Your task to perform on an android device: Add jbl charge 4 to the cart on amazon.com Image 0: 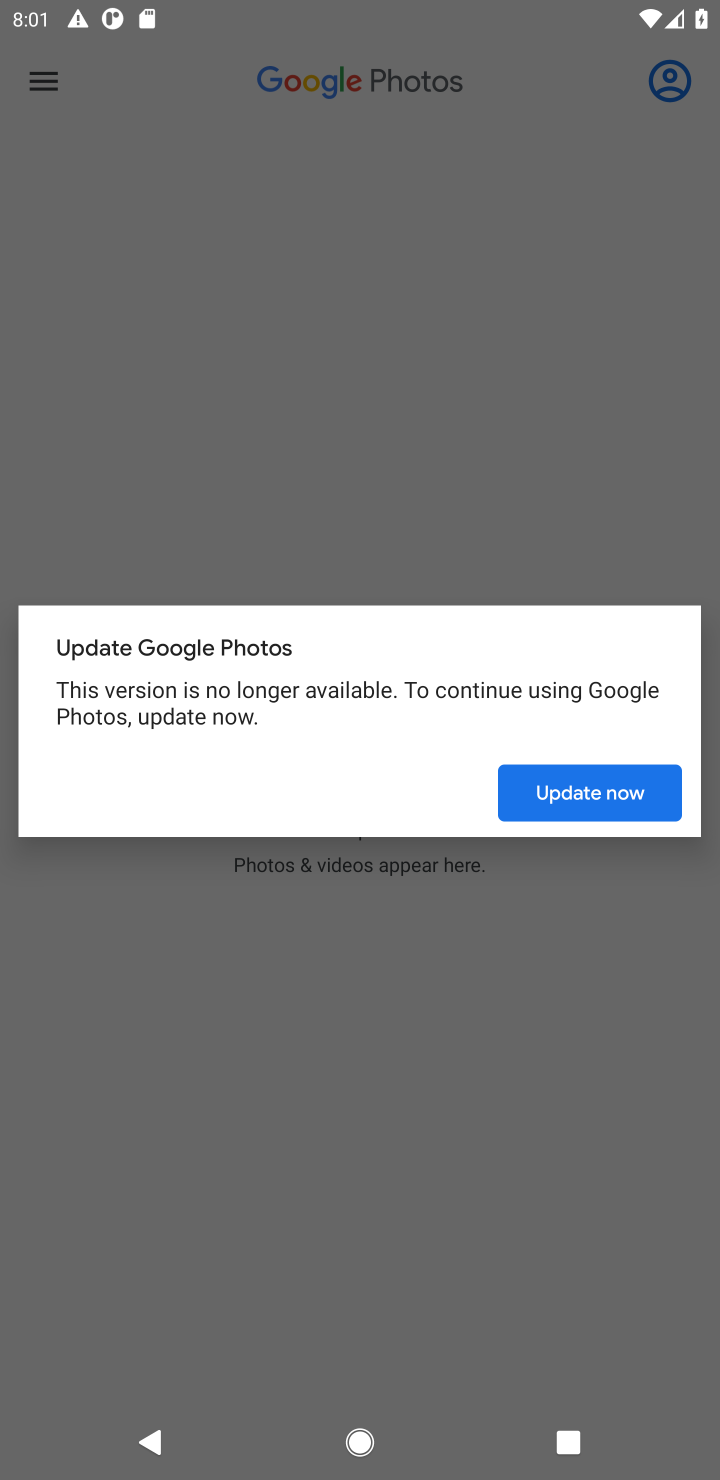
Step 0: press home button
Your task to perform on an android device: Add jbl charge 4 to the cart on amazon.com Image 1: 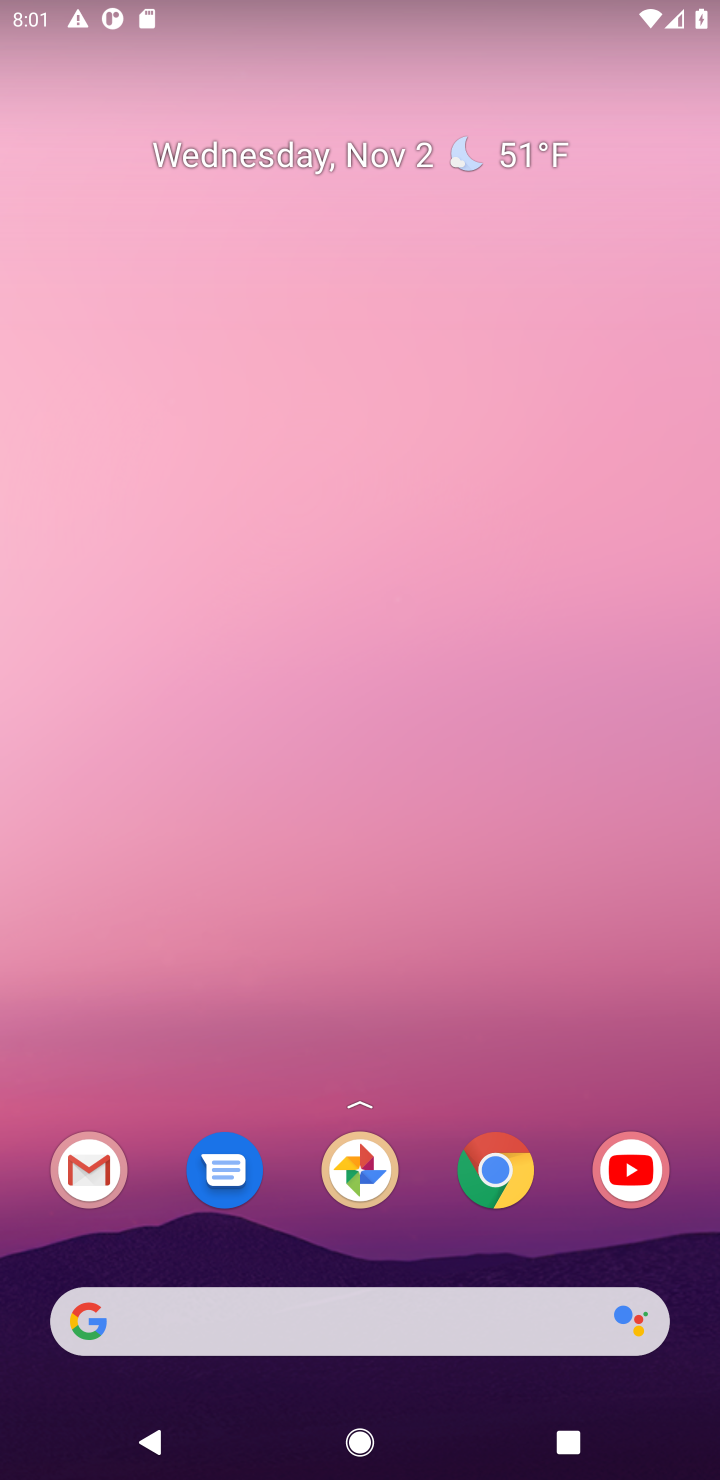
Step 1: click (488, 1171)
Your task to perform on an android device: Add jbl charge 4 to the cart on amazon.com Image 2: 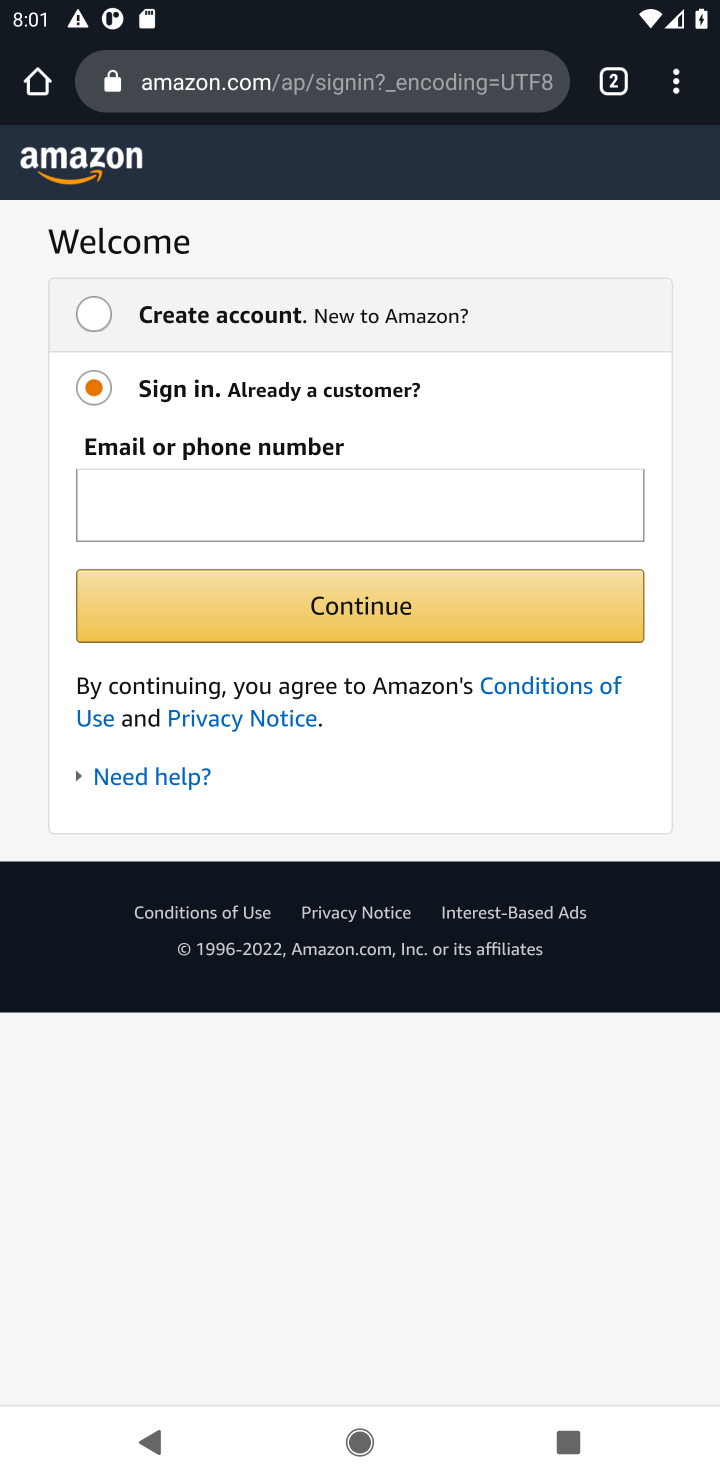
Step 2: click (433, 85)
Your task to perform on an android device: Add jbl charge 4 to the cart on amazon.com Image 3: 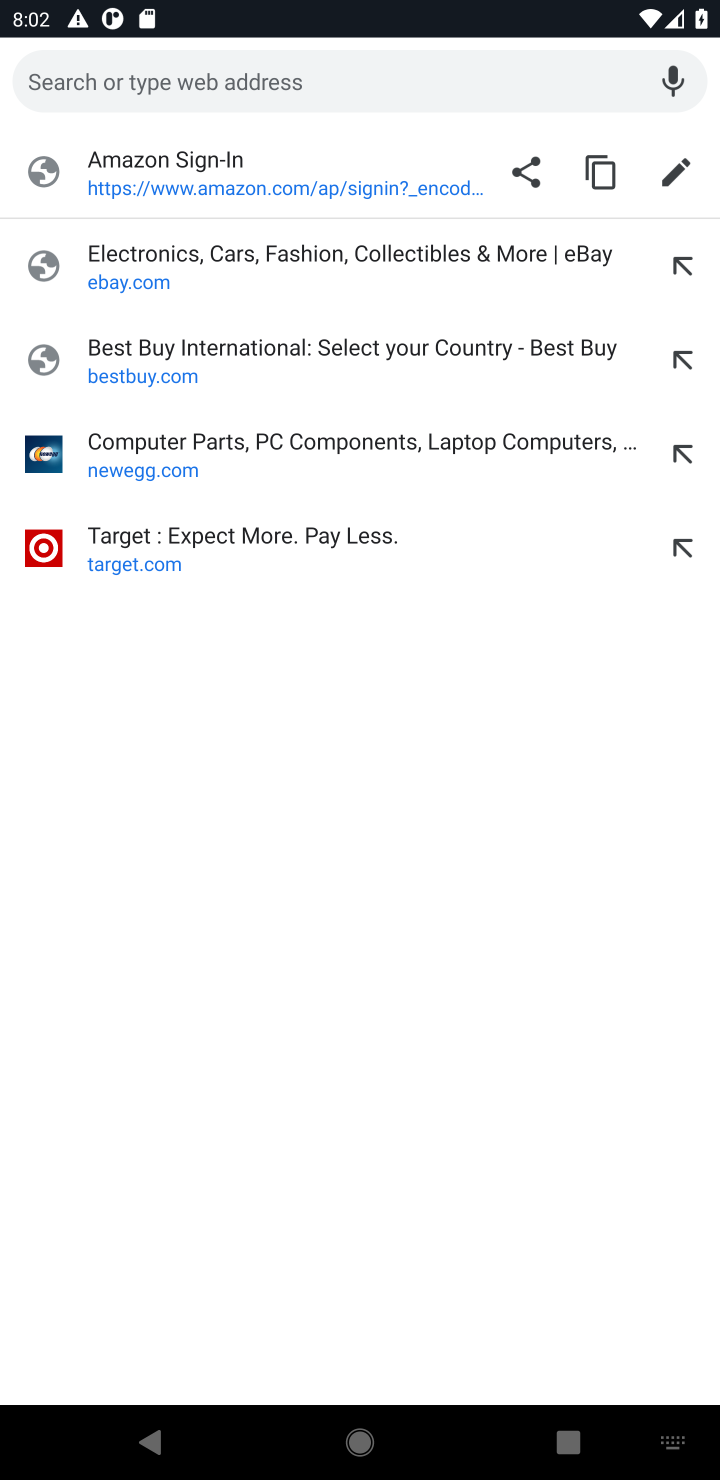
Step 3: type "amazon.com"
Your task to perform on an android device: Add jbl charge 4 to the cart on amazon.com Image 4: 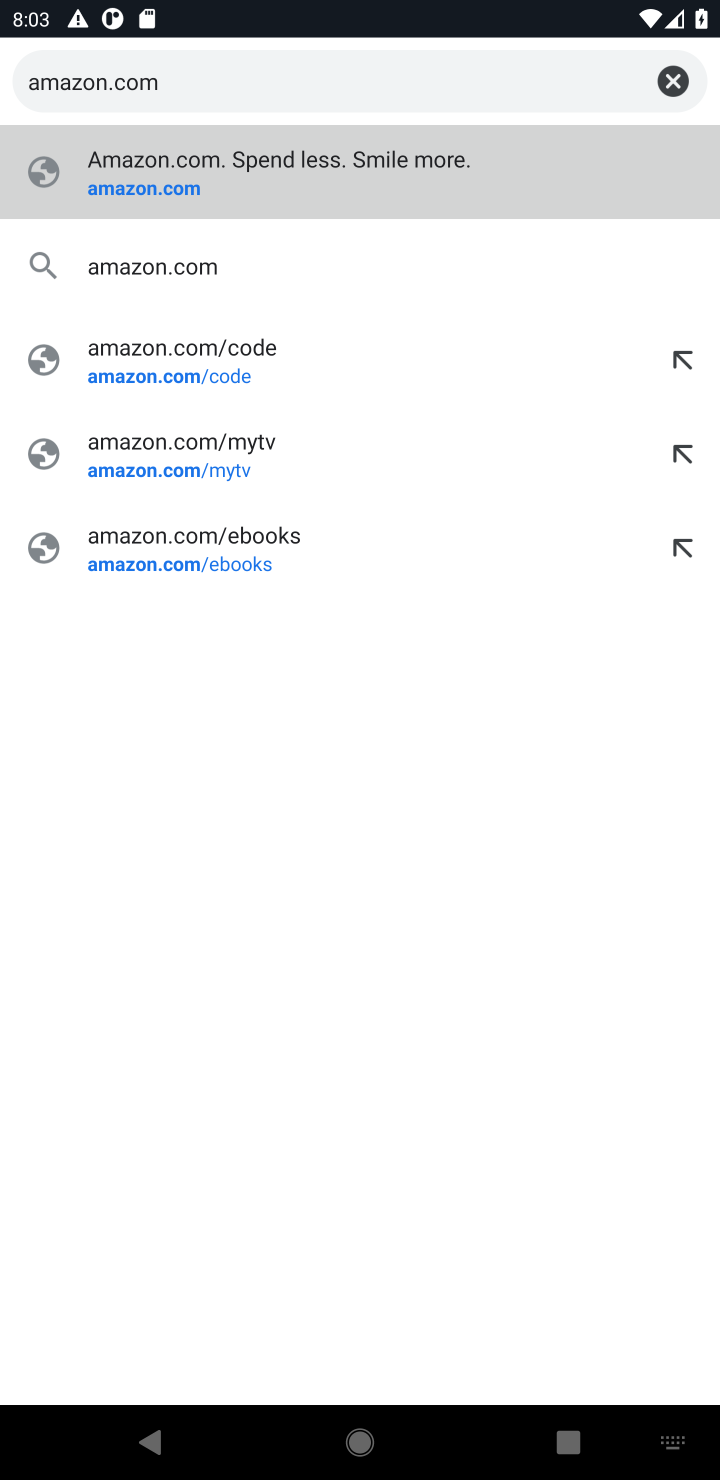
Step 4: type ""
Your task to perform on an android device: Add jbl charge 4 to the cart on amazon.com Image 5: 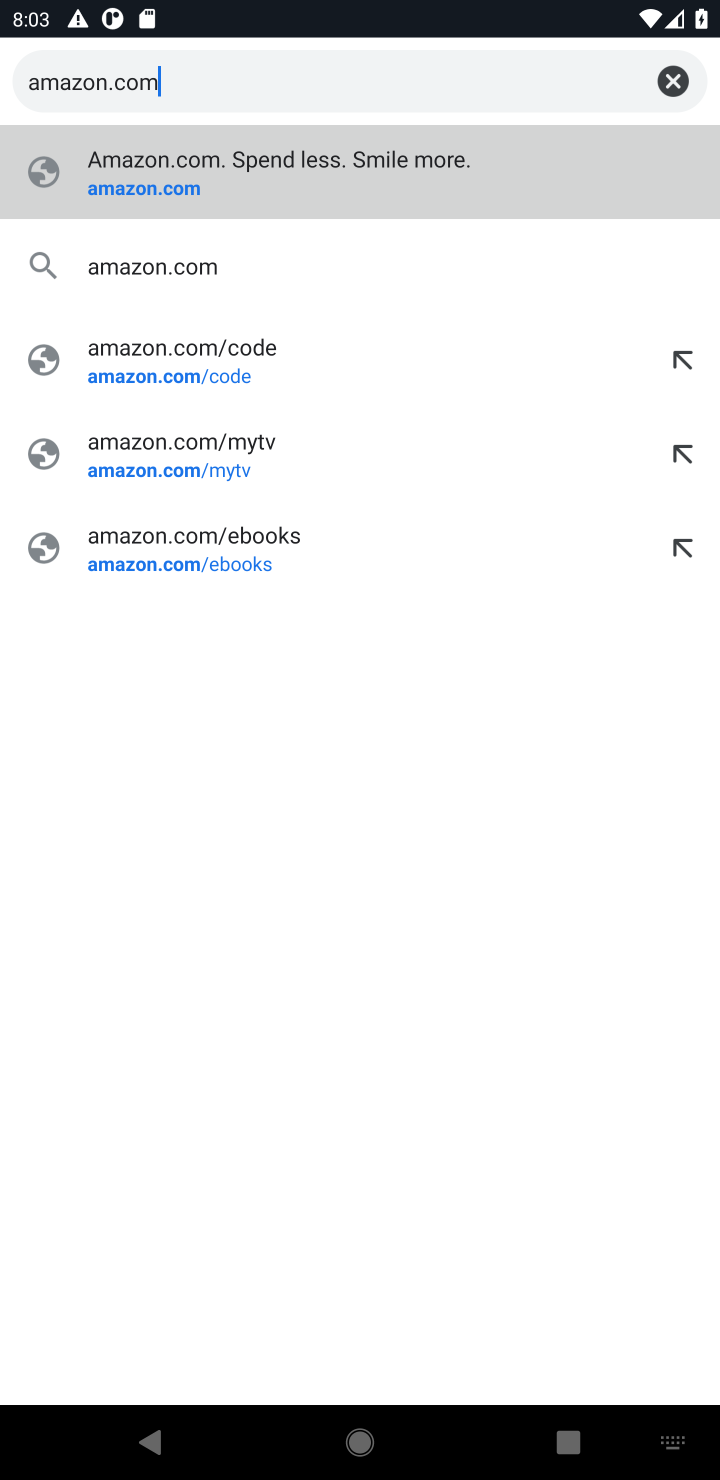
Step 5: press enter
Your task to perform on an android device: Add jbl charge 4 to the cart on amazon.com Image 6: 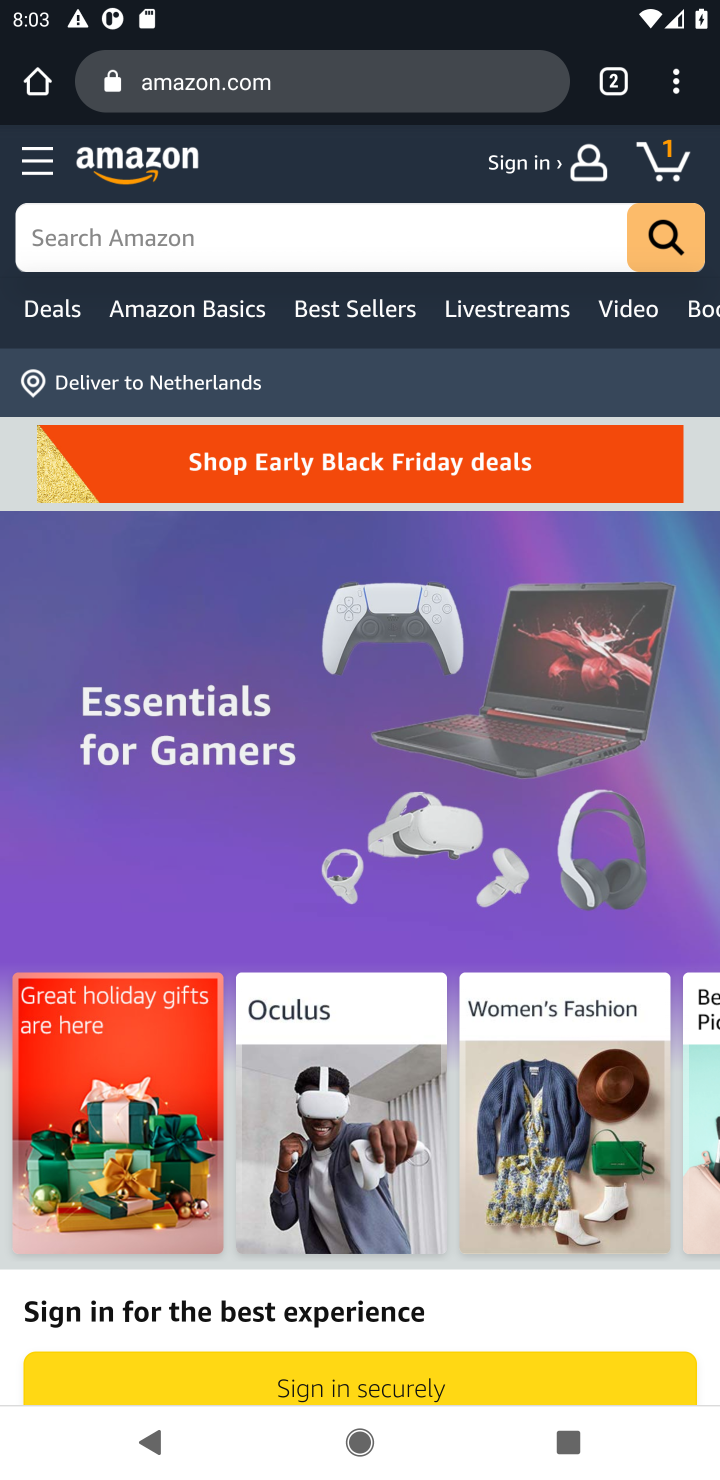
Step 6: click (495, 205)
Your task to perform on an android device: Add jbl charge 4 to the cart on amazon.com Image 7: 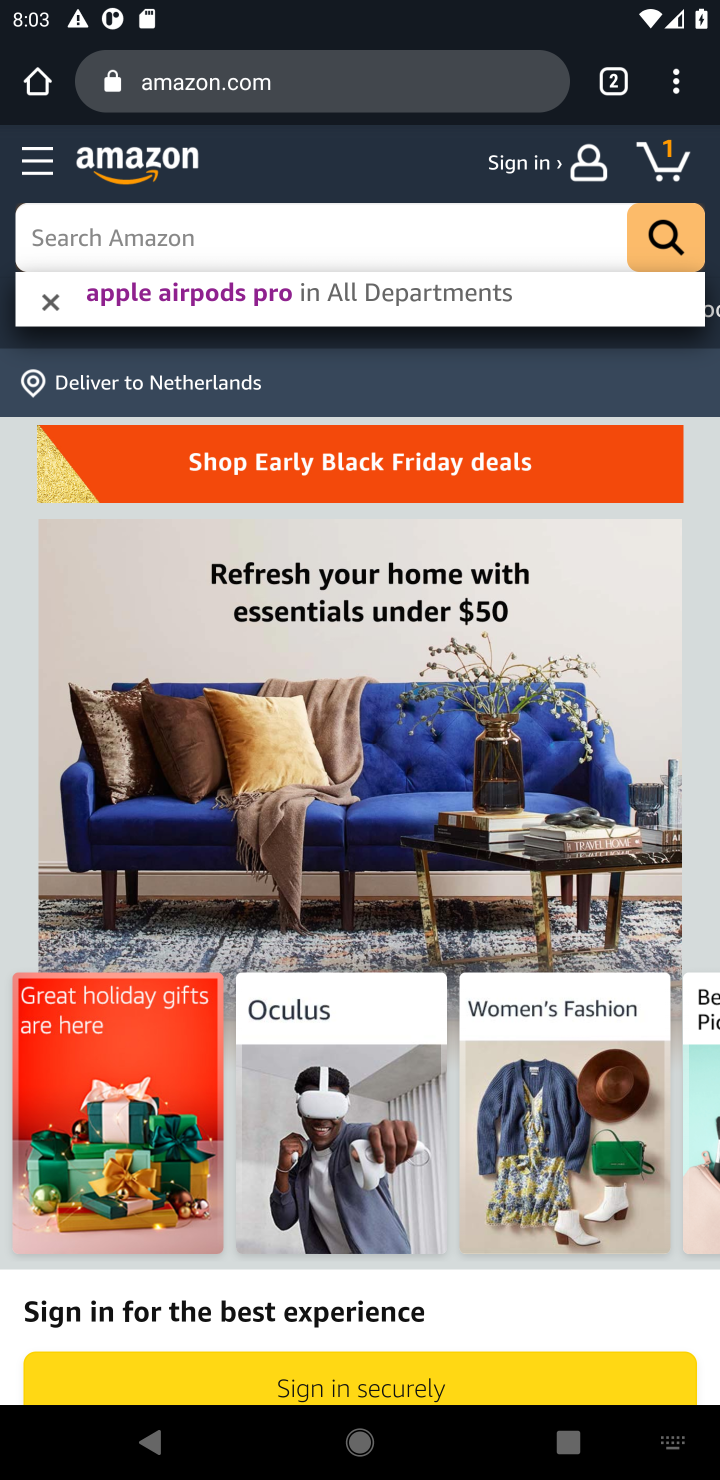
Step 7: type " jbl charge 4"
Your task to perform on an android device: Add jbl charge 4 to the cart on amazon.com Image 8: 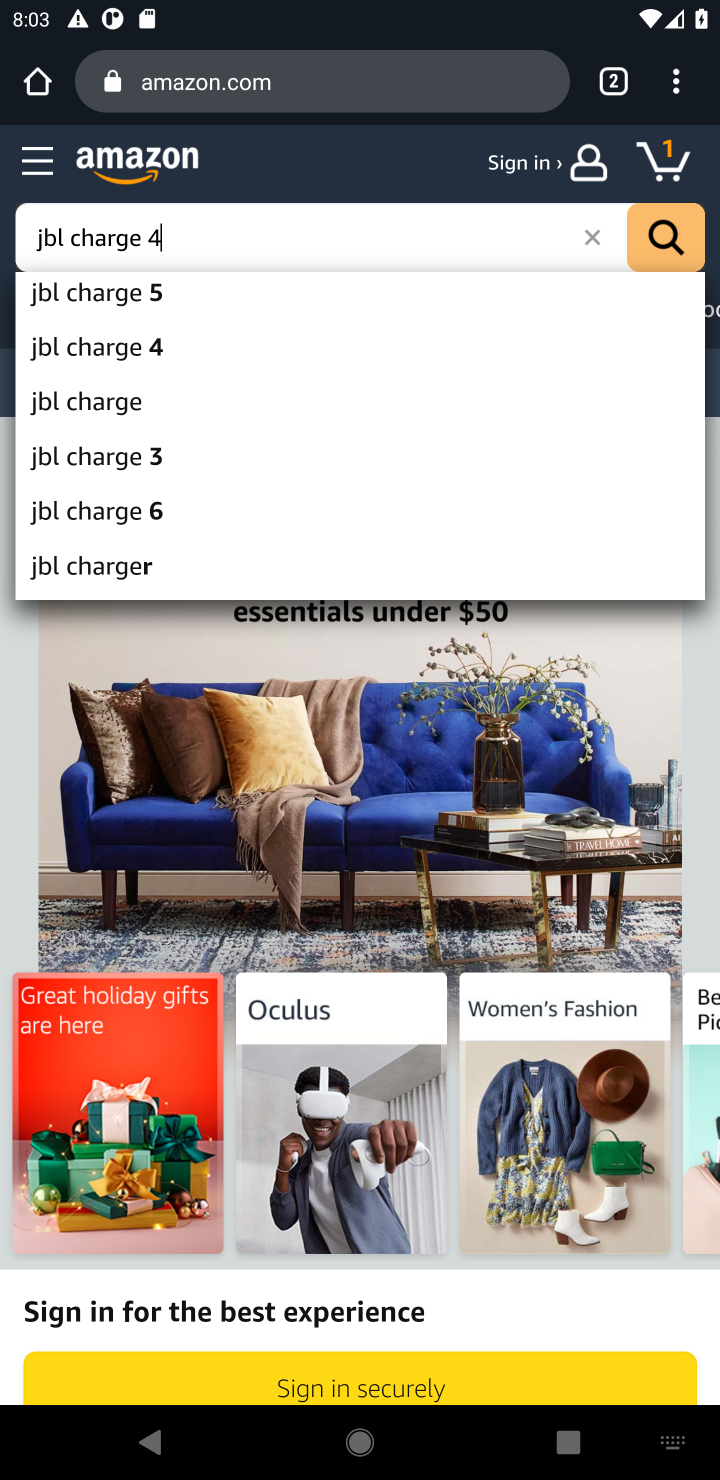
Step 8: type ""
Your task to perform on an android device: Add jbl charge 4 to the cart on amazon.com Image 9: 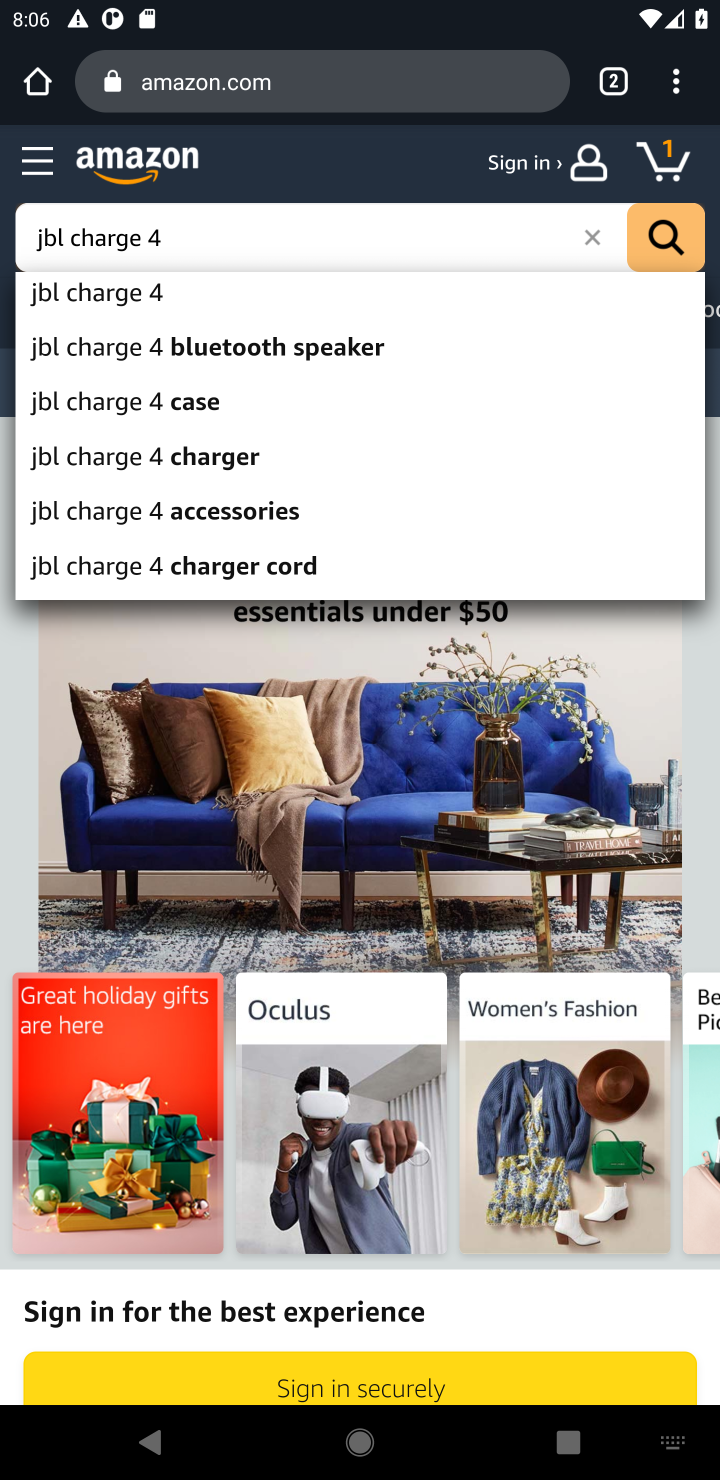
Step 9: press enter
Your task to perform on an android device: Add jbl charge 4 to the cart on amazon.com Image 10: 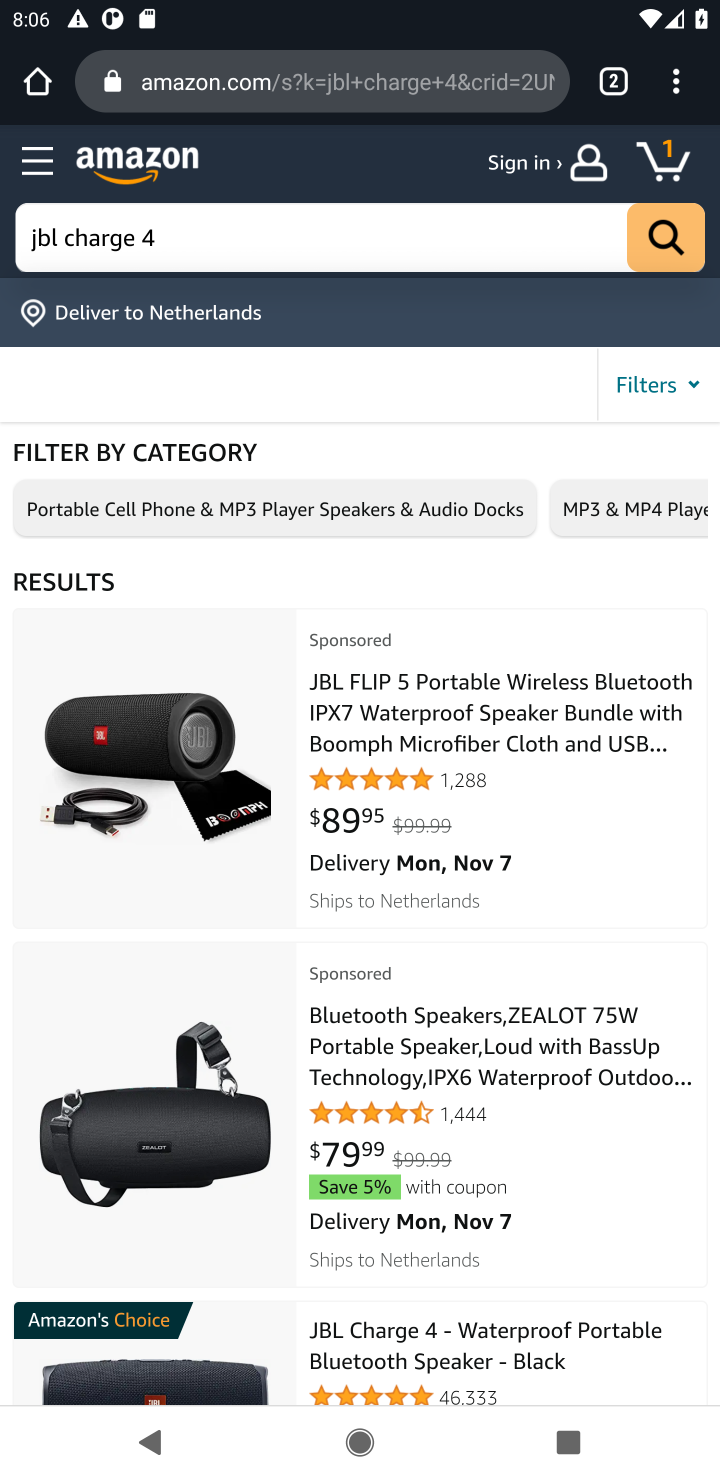
Step 10: drag from (519, 1272) to (440, 13)
Your task to perform on an android device: Add jbl charge 4 to the cart on amazon.com Image 11: 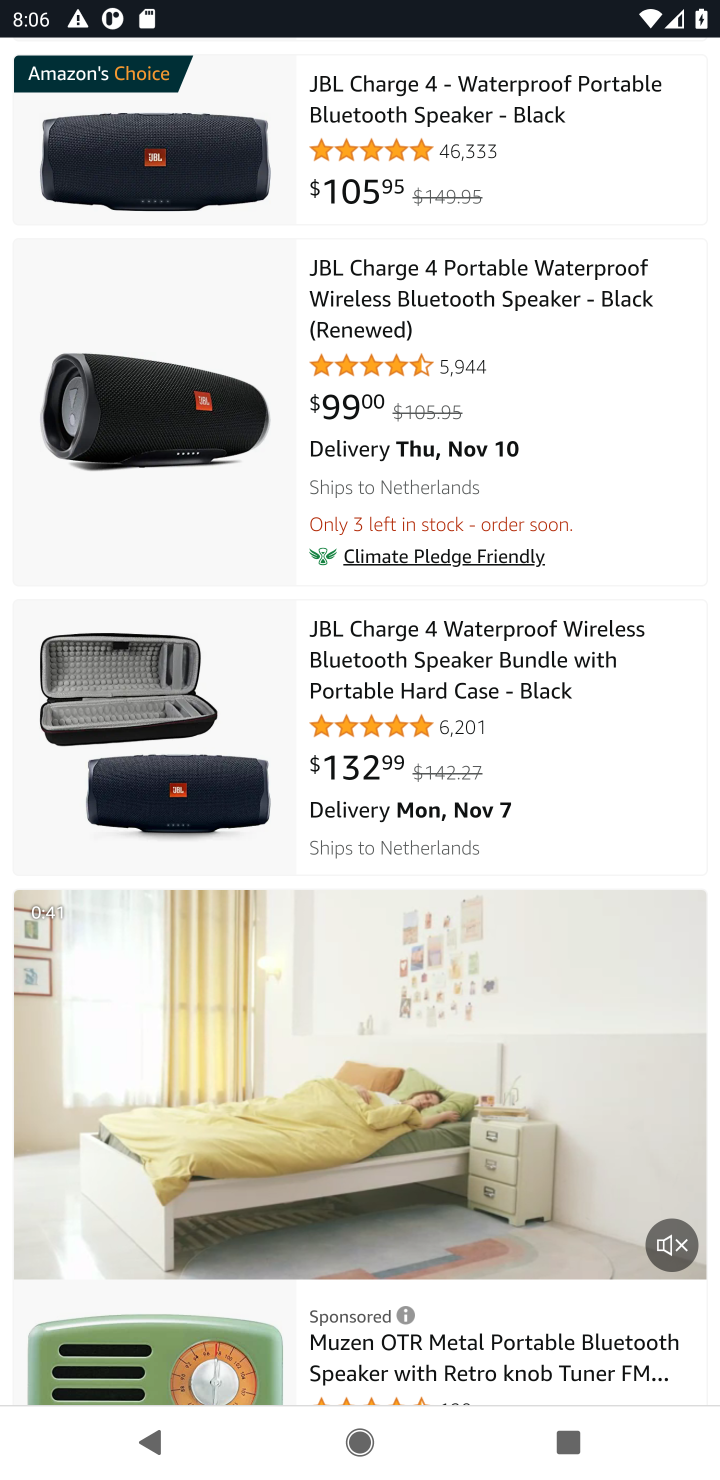
Step 11: click (437, 636)
Your task to perform on an android device: Add jbl charge 4 to the cart on amazon.com Image 12: 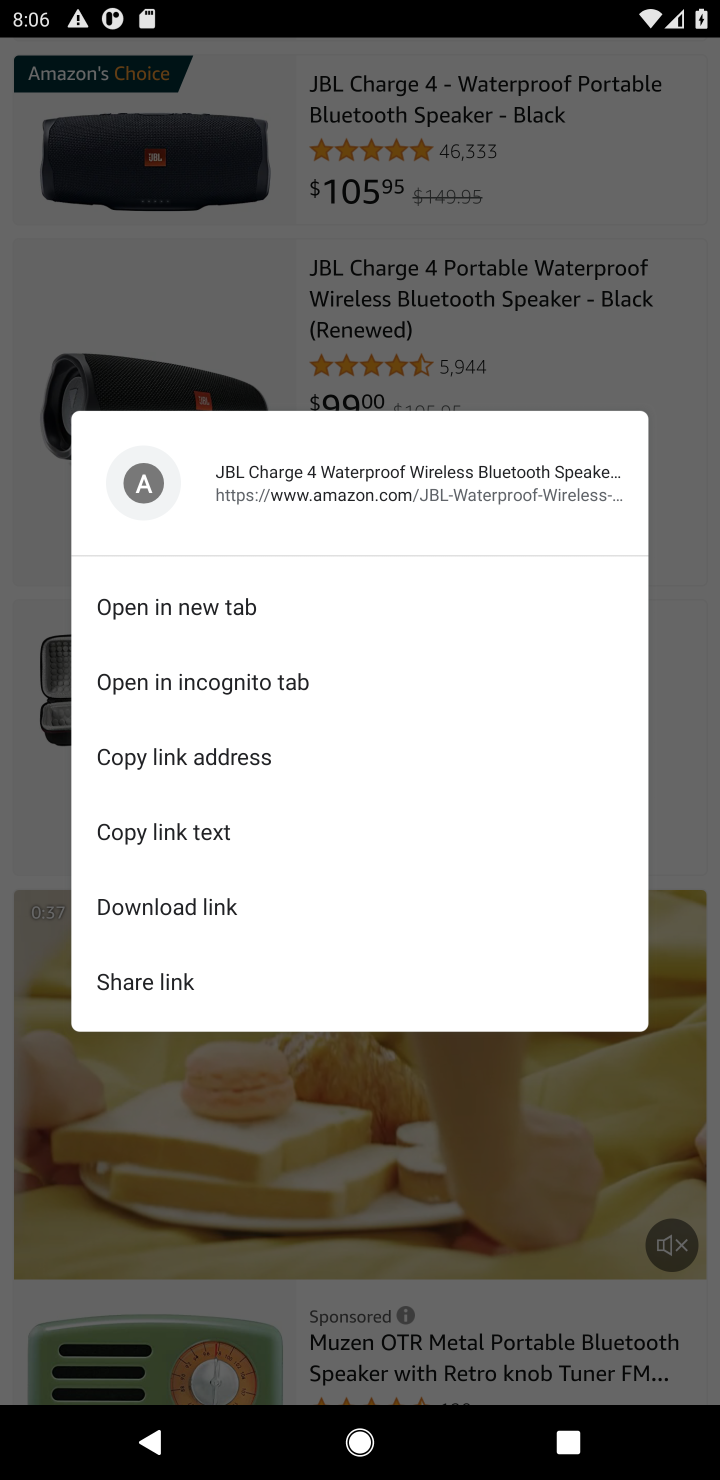
Step 12: click (675, 746)
Your task to perform on an android device: Add jbl charge 4 to the cart on amazon.com Image 13: 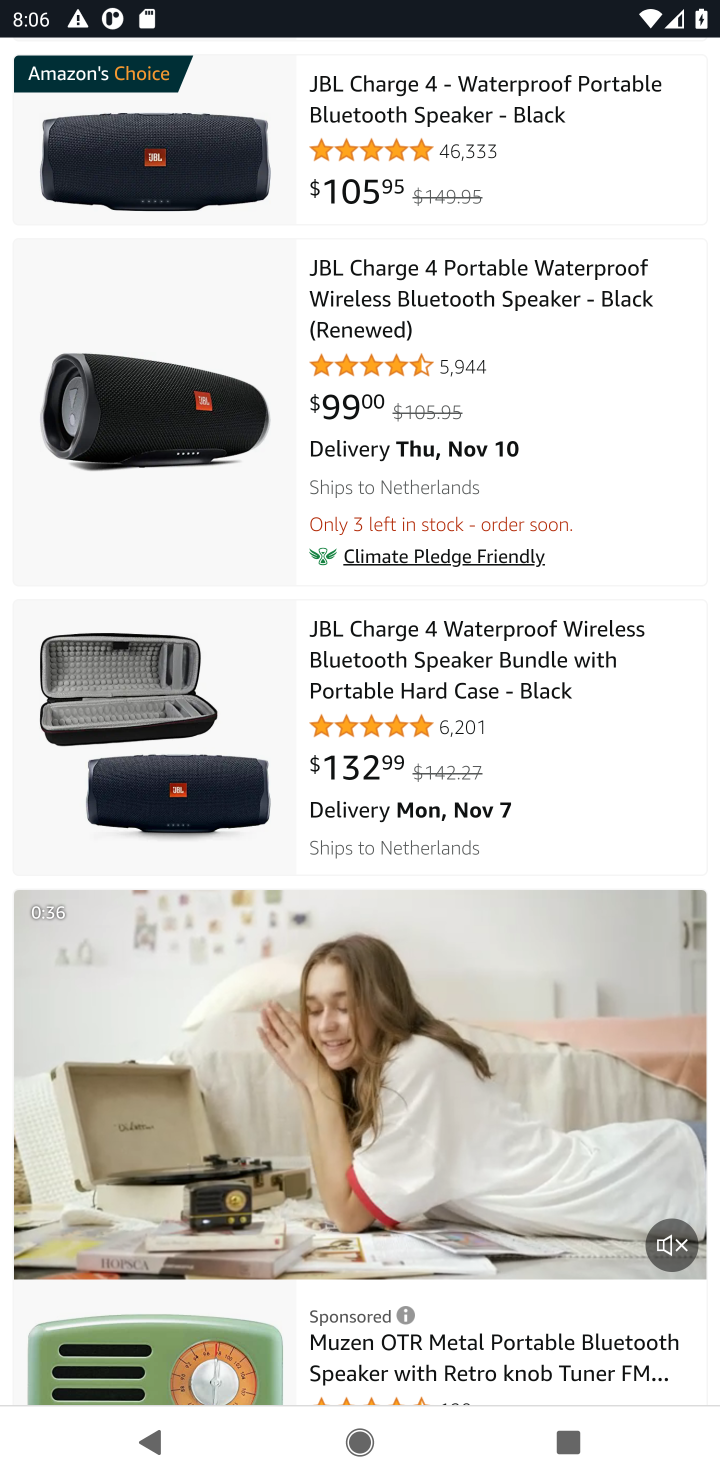
Step 13: click (312, 655)
Your task to perform on an android device: Add jbl charge 4 to the cart on amazon.com Image 14: 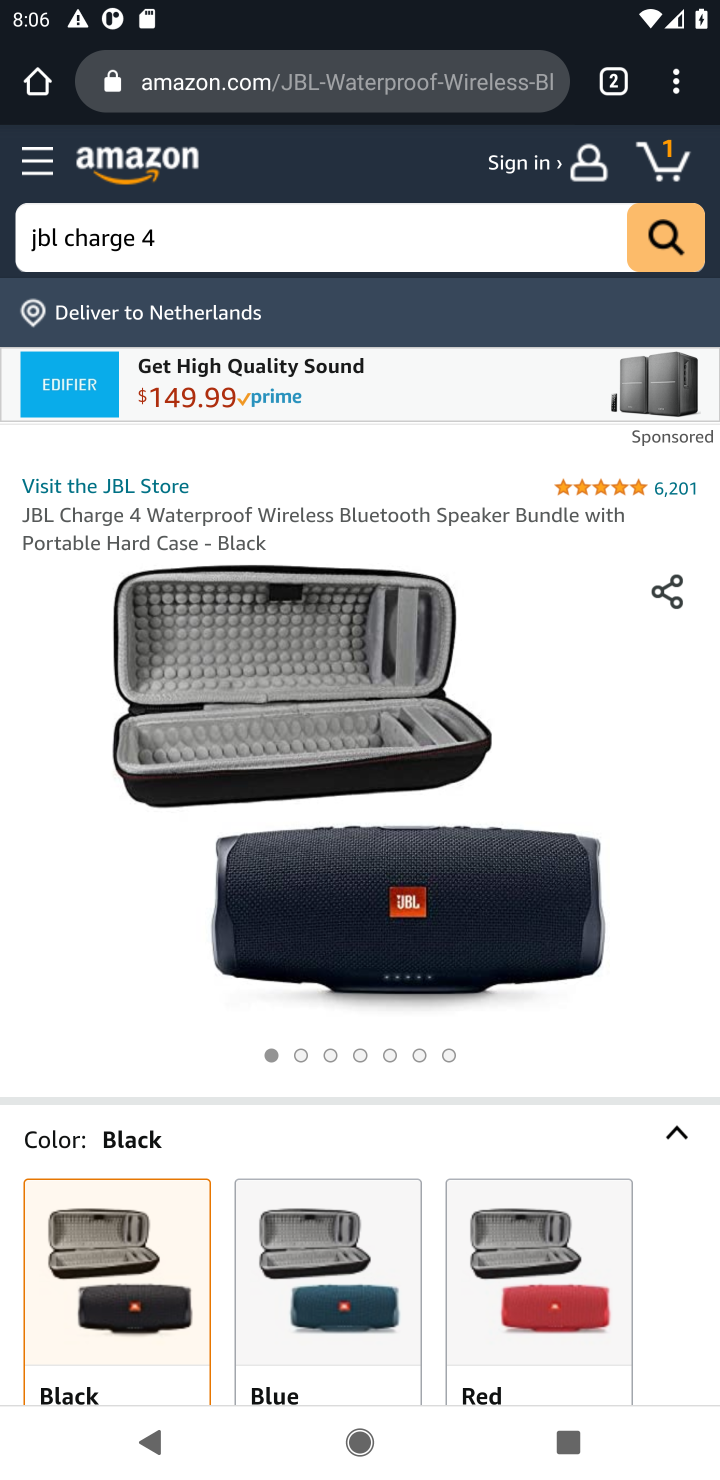
Step 14: drag from (507, 1146) to (470, 521)
Your task to perform on an android device: Add jbl charge 4 to the cart on amazon.com Image 15: 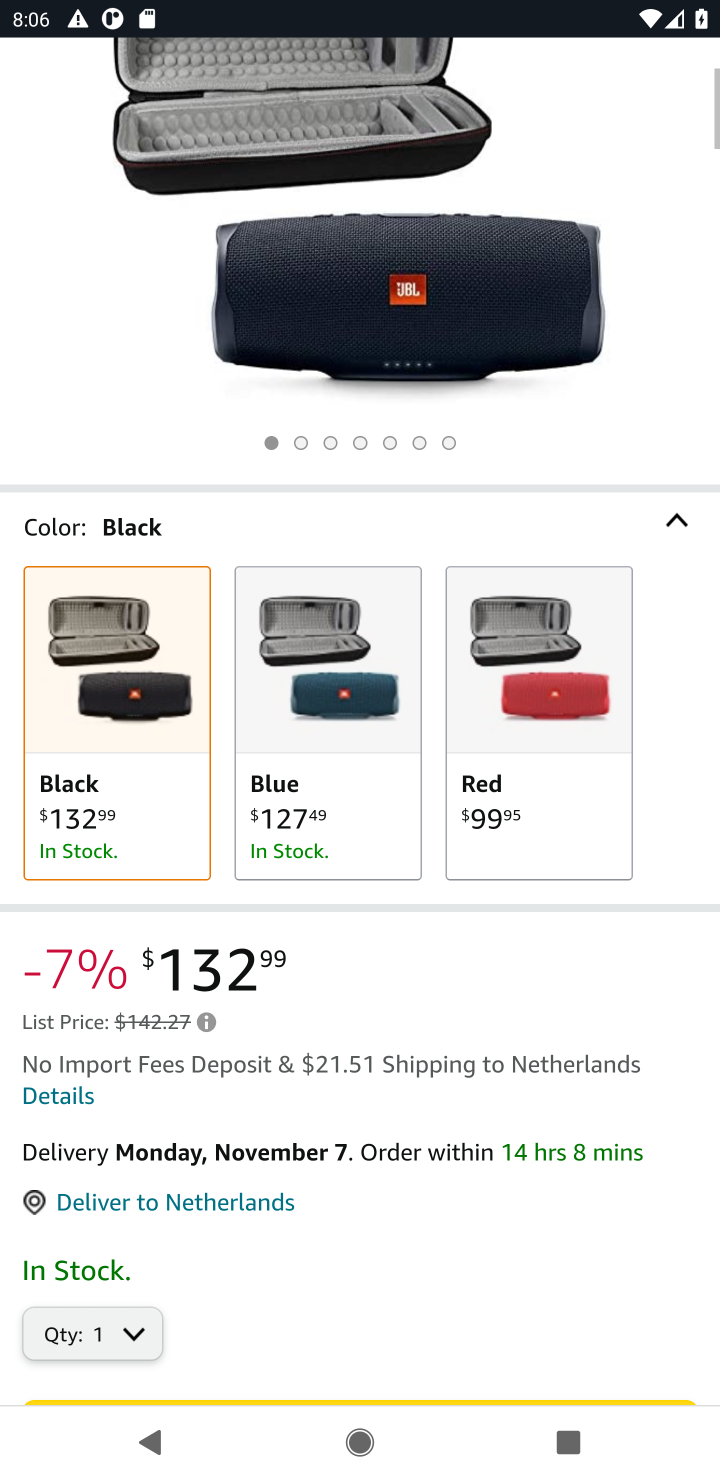
Step 15: drag from (479, 1231) to (513, 662)
Your task to perform on an android device: Add jbl charge 4 to the cart on amazon.com Image 16: 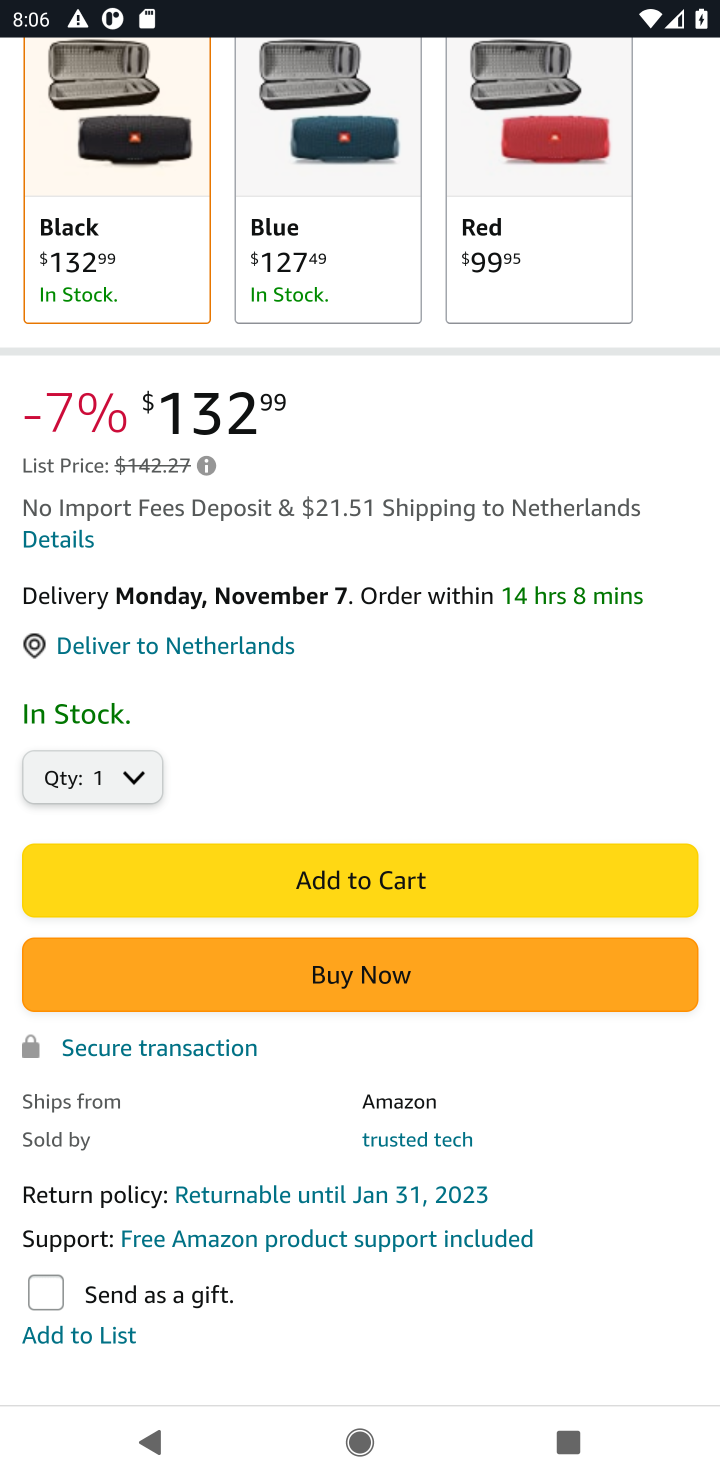
Step 16: click (528, 868)
Your task to perform on an android device: Add jbl charge 4 to the cart on amazon.com Image 17: 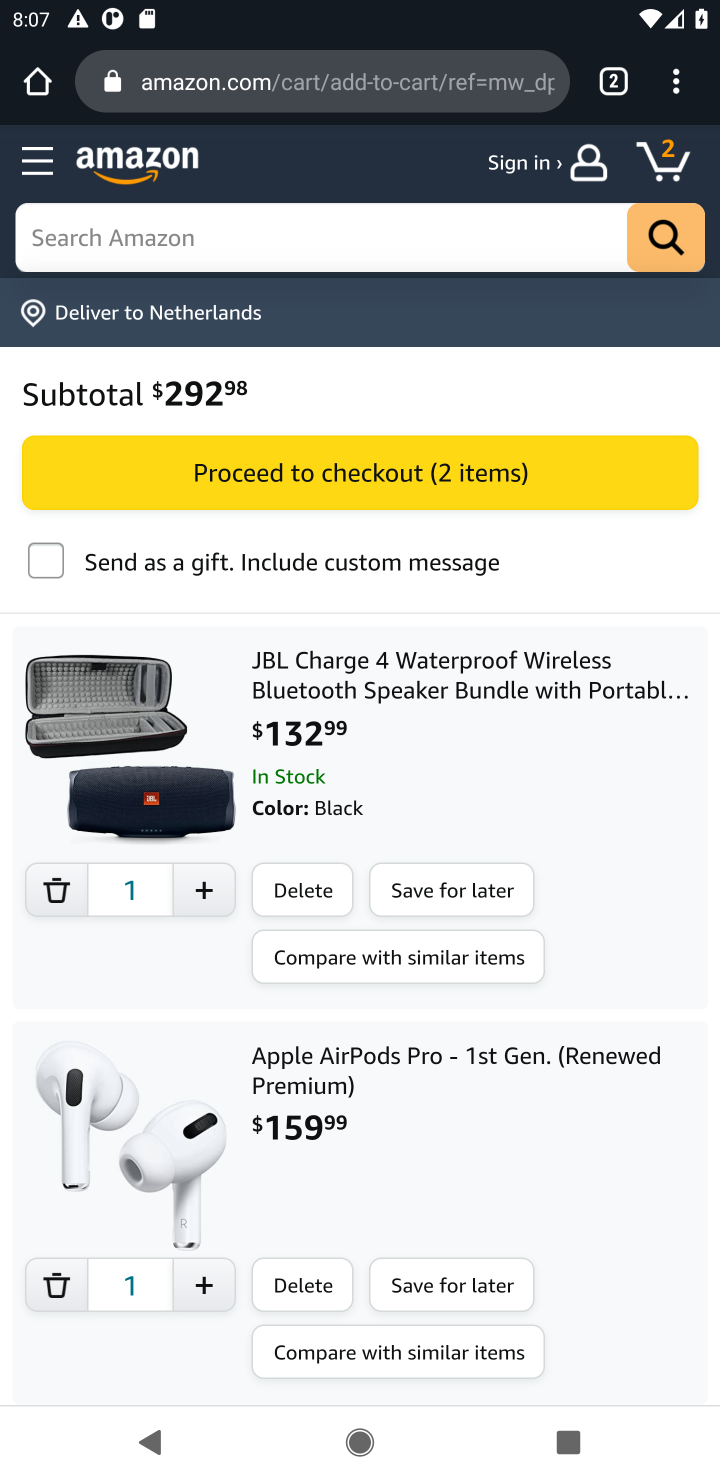
Step 17: task complete